Your task to perform on an android device: Open Chrome and go to settings Image 0: 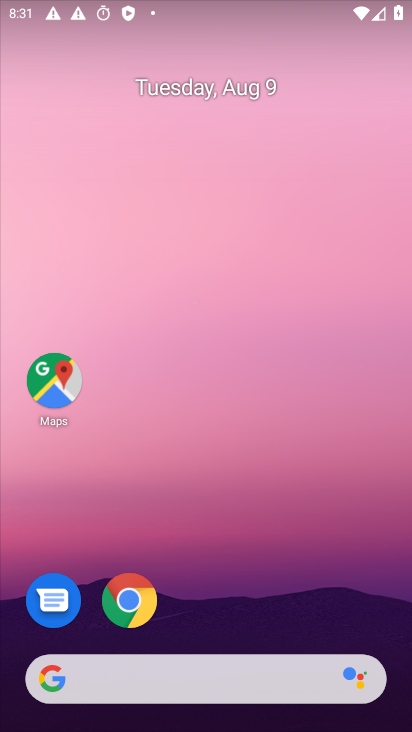
Step 0: press home button
Your task to perform on an android device: Open Chrome and go to settings Image 1: 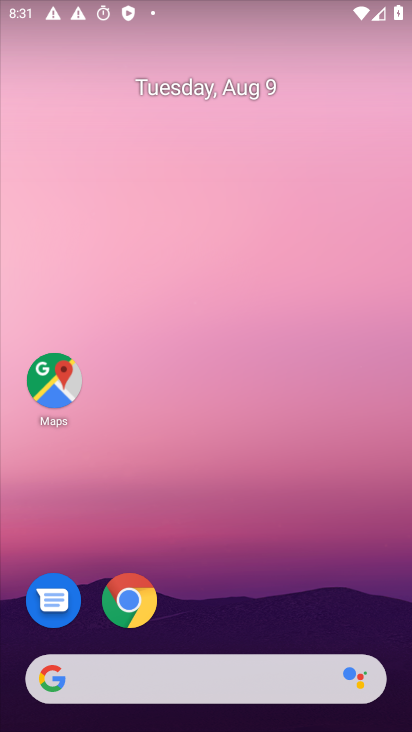
Step 1: click (124, 611)
Your task to perform on an android device: Open Chrome and go to settings Image 2: 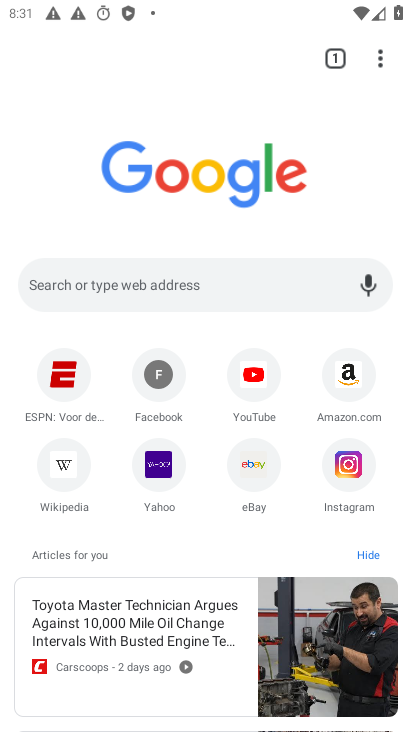
Step 2: task complete